Your task to perform on an android device: Go to settings Image 0: 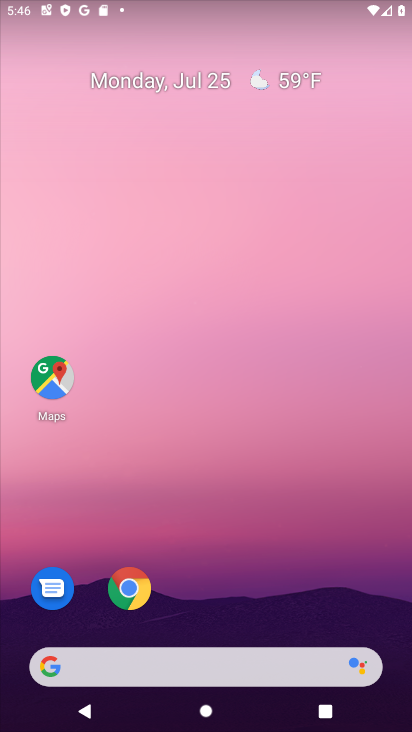
Step 0: drag from (293, 555) to (249, 87)
Your task to perform on an android device: Go to settings Image 1: 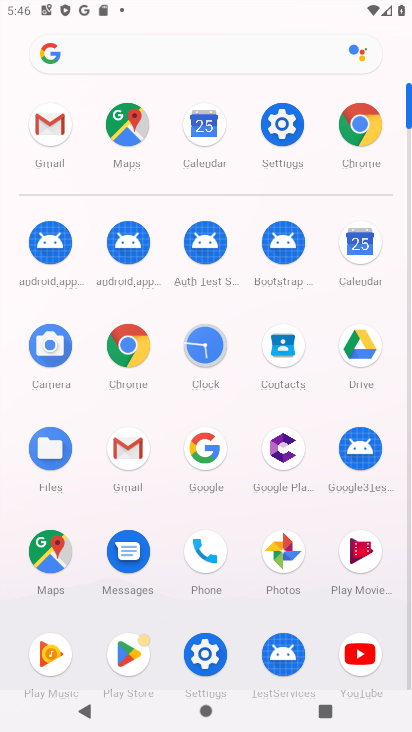
Step 1: click (200, 661)
Your task to perform on an android device: Go to settings Image 2: 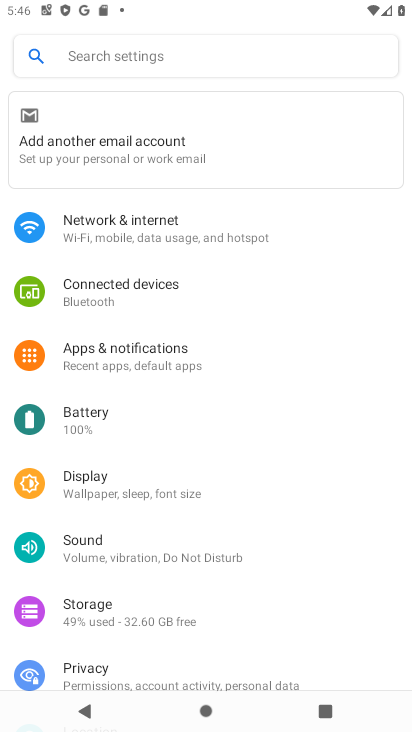
Step 2: task complete